Your task to perform on an android device: change notifications settings Image 0: 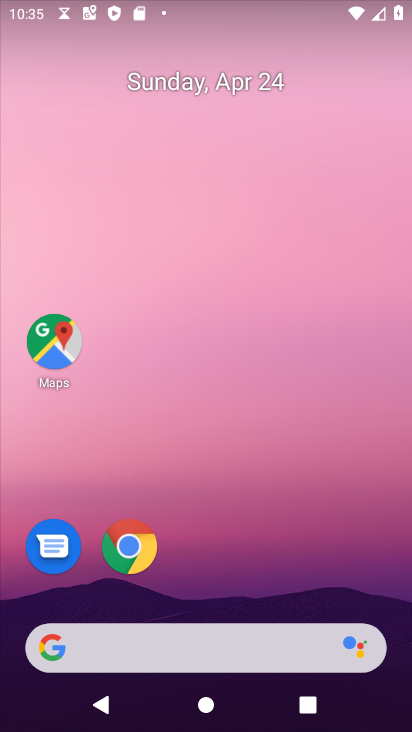
Step 0: drag from (380, 617) to (403, 319)
Your task to perform on an android device: change notifications settings Image 1: 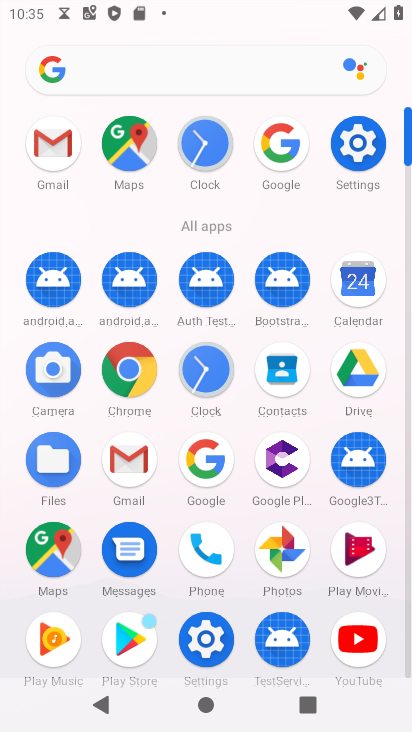
Step 1: click (355, 141)
Your task to perform on an android device: change notifications settings Image 2: 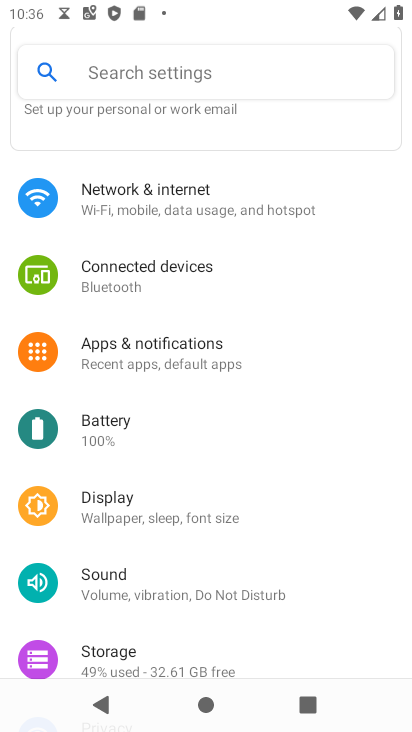
Step 2: click (167, 361)
Your task to perform on an android device: change notifications settings Image 3: 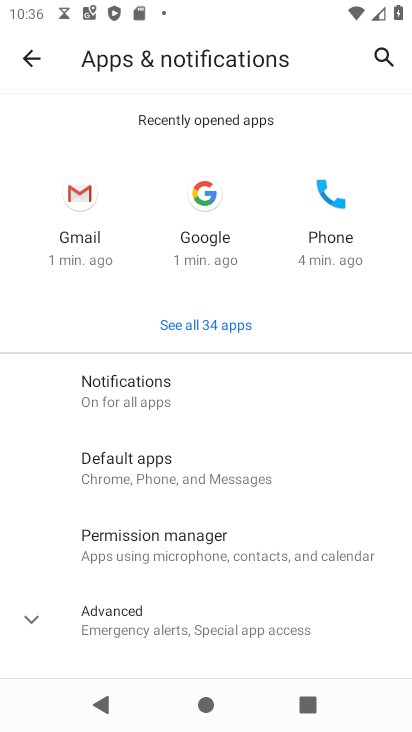
Step 3: drag from (200, 538) to (176, 300)
Your task to perform on an android device: change notifications settings Image 4: 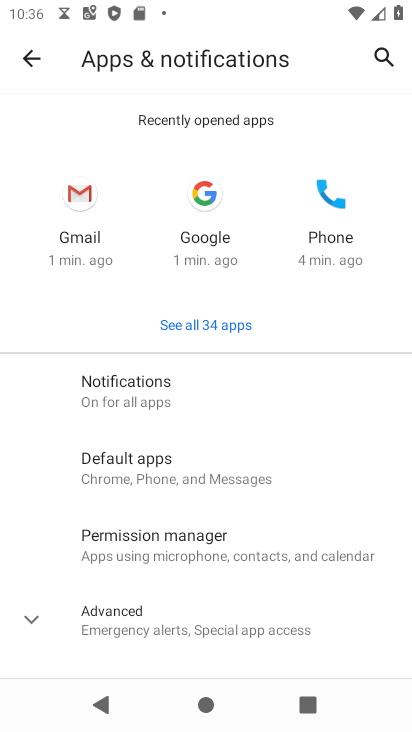
Step 4: click (33, 634)
Your task to perform on an android device: change notifications settings Image 5: 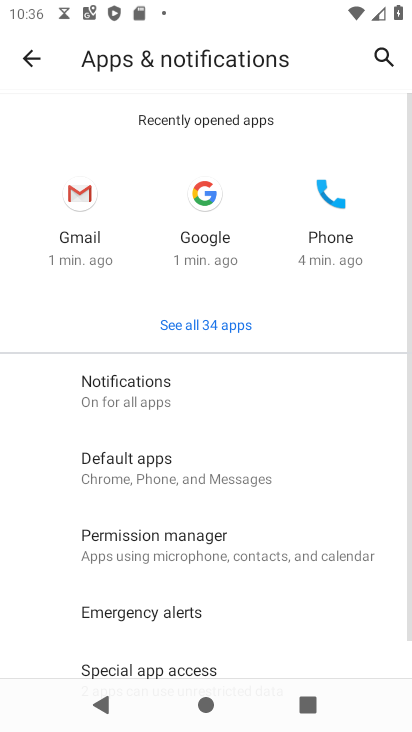
Step 5: drag from (222, 634) to (201, 406)
Your task to perform on an android device: change notifications settings Image 6: 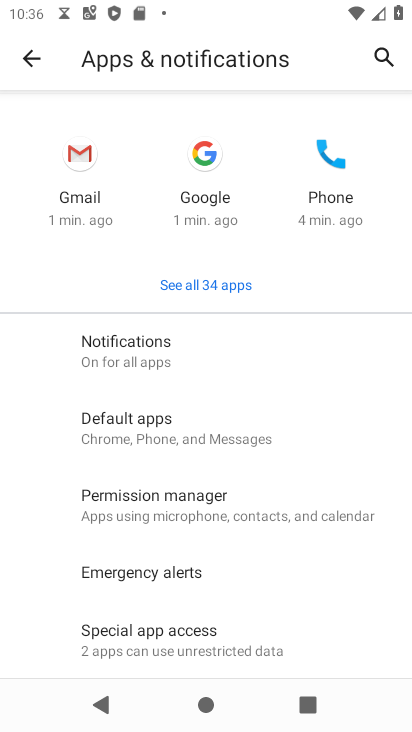
Step 6: drag from (140, 639) to (126, 326)
Your task to perform on an android device: change notifications settings Image 7: 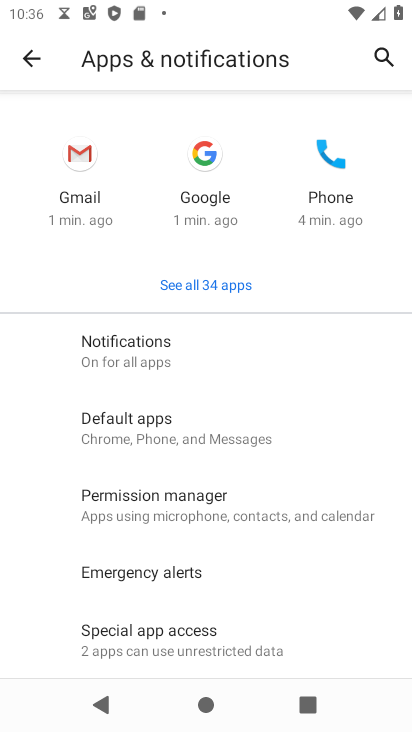
Step 7: click (135, 368)
Your task to perform on an android device: change notifications settings Image 8: 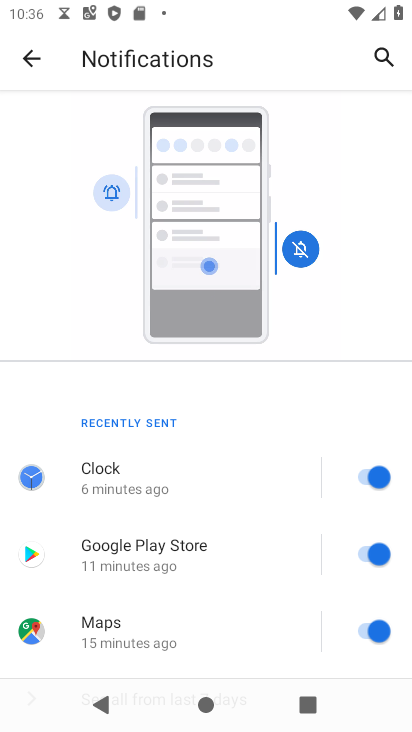
Step 8: drag from (180, 638) to (200, 178)
Your task to perform on an android device: change notifications settings Image 9: 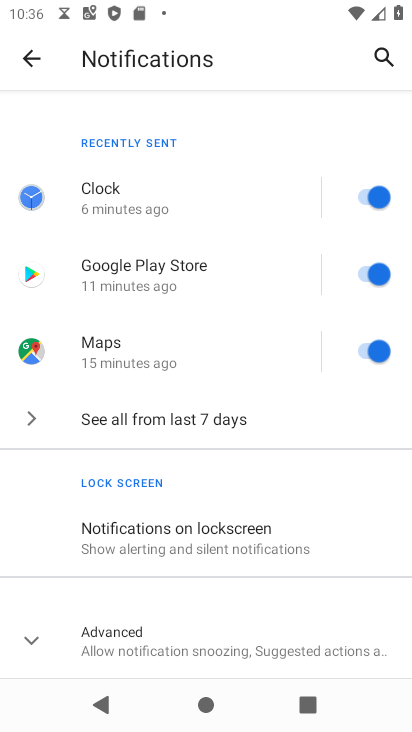
Step 9: drag from (199, 565) to (201, 212)
Your task to perform on an android device: change notifications settings Image 10: 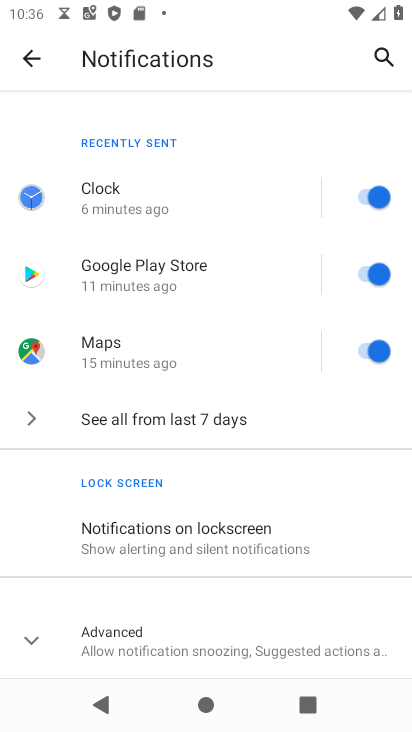
Step 10: click (176, 428)
Your task to perform on an android device: change notifications settings Image 11: 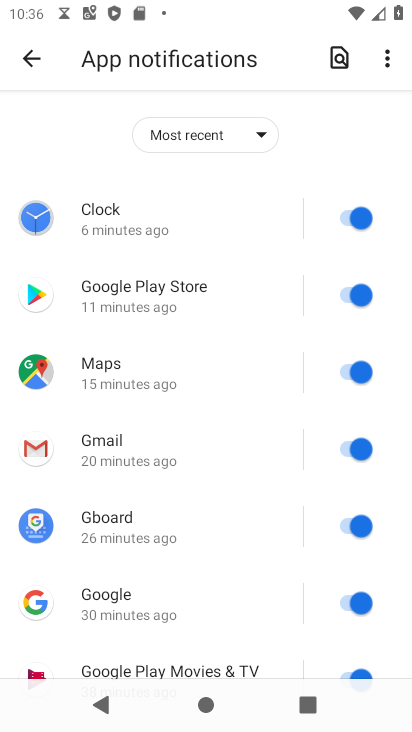
Step 11: click (259, 131)
Your task to perform on an android device: change notifications settings Image 12: 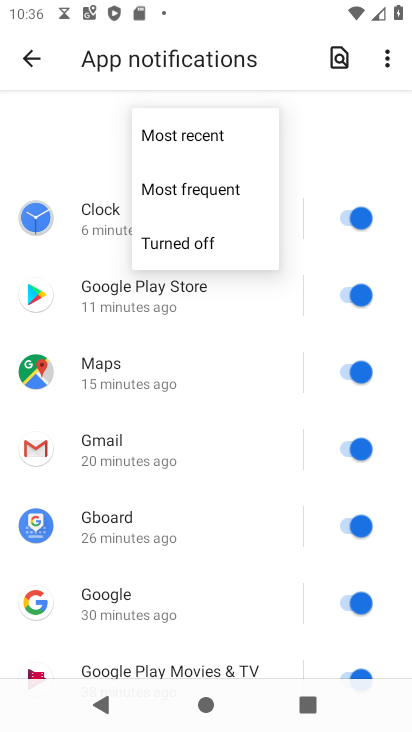
Step 12: click (186, 201)
Your task to perform on an android device: change notifications settings Image 13: 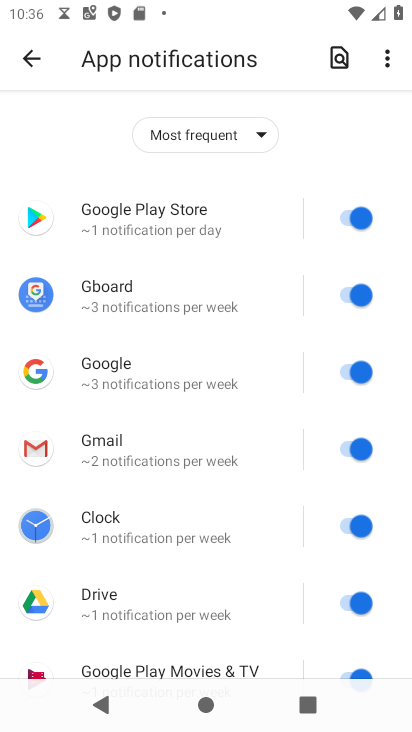
Step 13: task complete